Your task to perform on an android device: Open privacy settings Image 0: 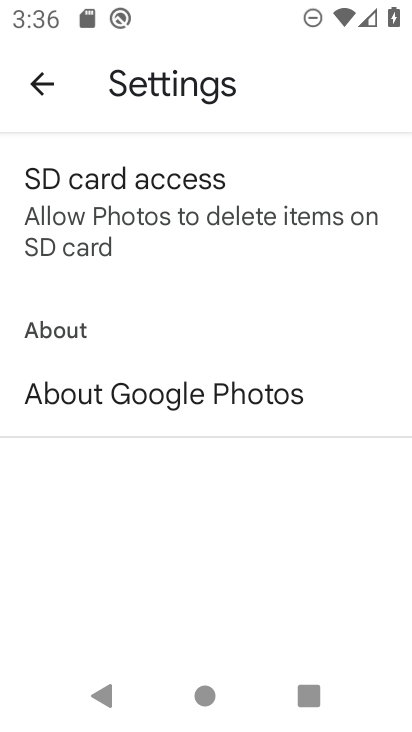
Step 0: press home button
Your task to perform on an android device: Open privacy settings Image 1: 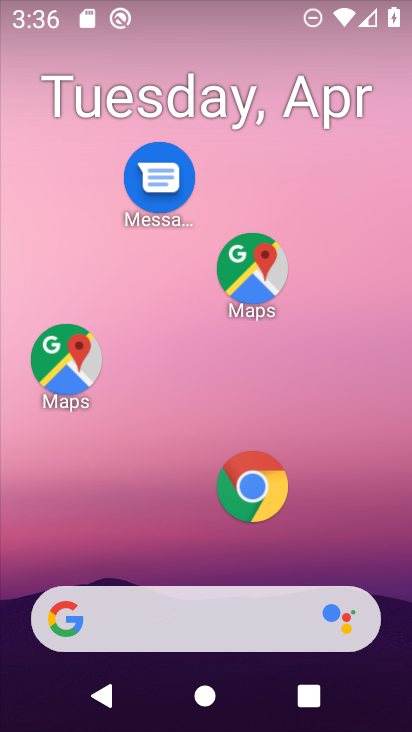
Step 1: drag from (286, 528) to (351, 152)
Your task to perform on an android device: Open privacy settings Image 2: 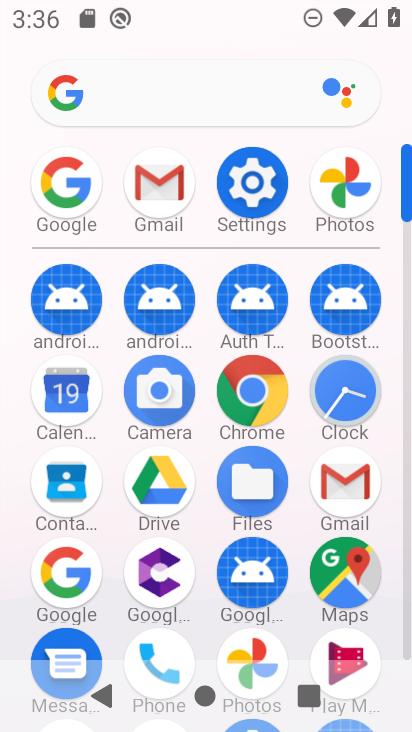
Step 2: click (263, 184)
Your task to perform on an android device: Open privacy settings Image 3: 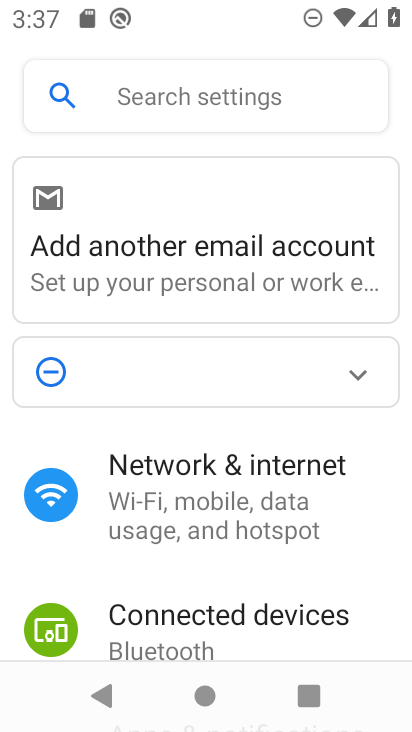
Step 3: drag from (271, 580) to (342, 309)
Your task to perform on an android device: Open privacy settings Image 4: 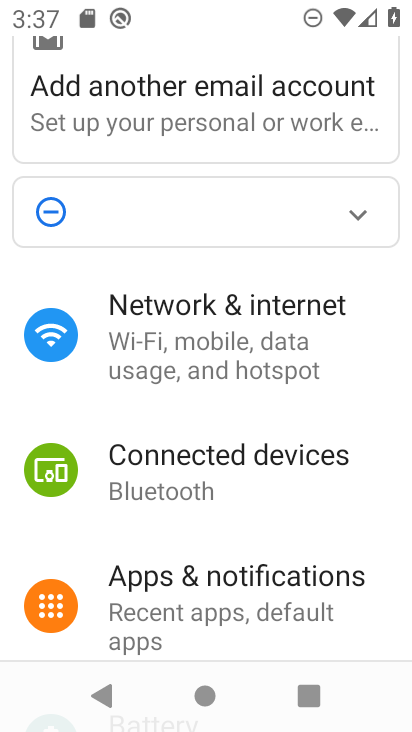
Step 4: drag from (227, 548) to (242, 356)
Your task to perform on an android device: Open privacy settings Image 5: 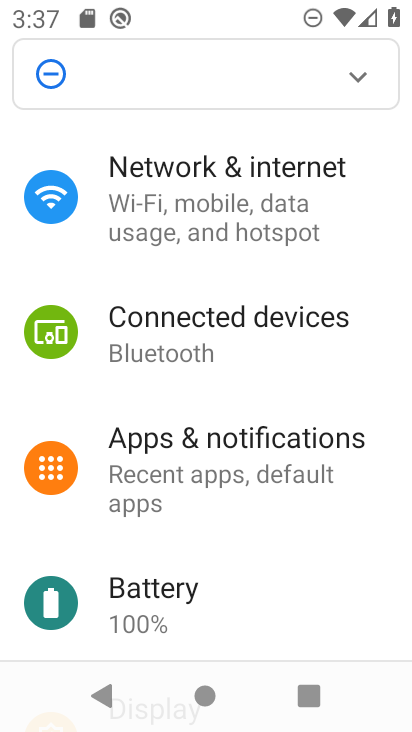
Step 5: drag from (230, 598) to (240, 316)
Your task to perform on an android device: Open privacy settings Image 6: 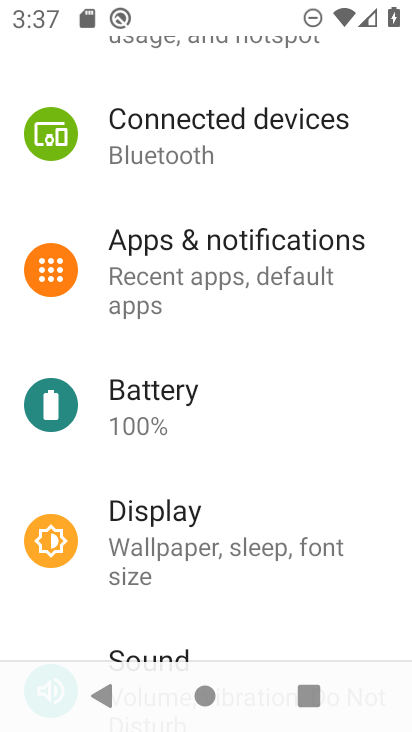
Step 6: drag from (216, 571) to (267, 294)
Your task to perform on an android device: Open privacy settings Image 7: 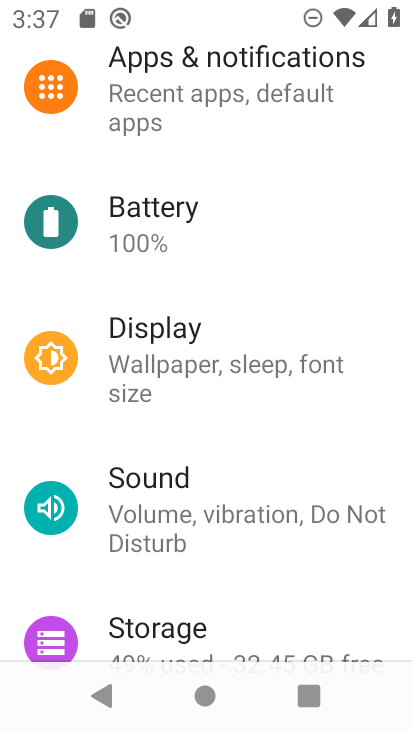
Step 7: drag from (202, 539) to (258, 309)
Your task to perform on an android device: Open privacy settings Image 8: 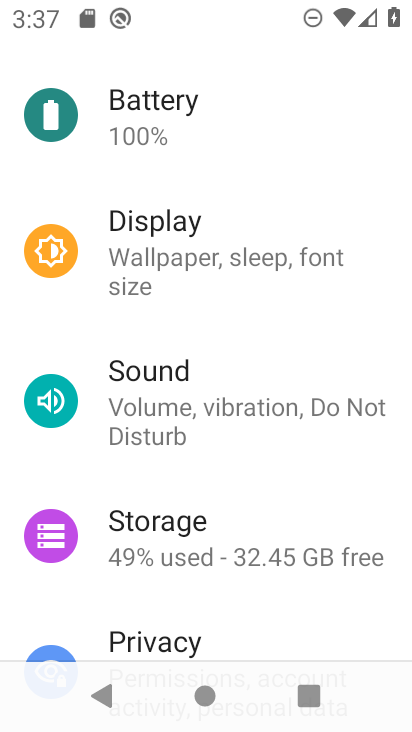
Step 8: click (199, 644)
Your task to perform on an android device: Open privacy settings Image 9: 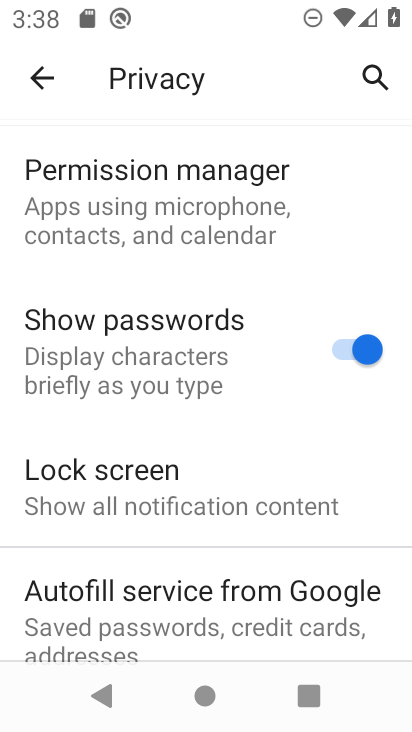
Step 9: task complete